Your task to perform on an android device: Open calendar and show me the first week of next month Image 0: 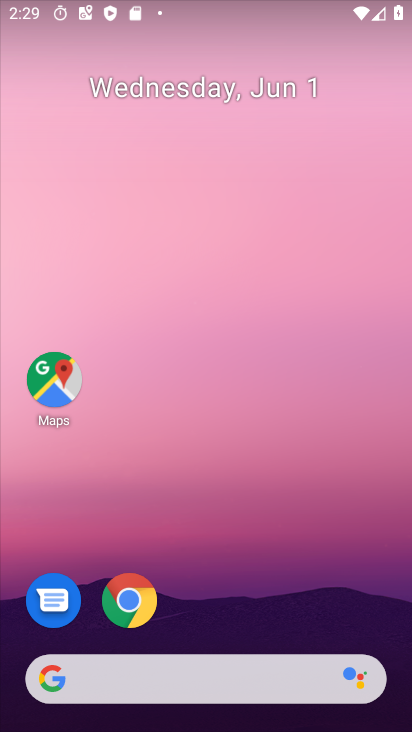
Step 0: drag from (211, 658) to (118, 87)
Your task to perform on an android device: Open calendar and show me the first week of next month Image 1: 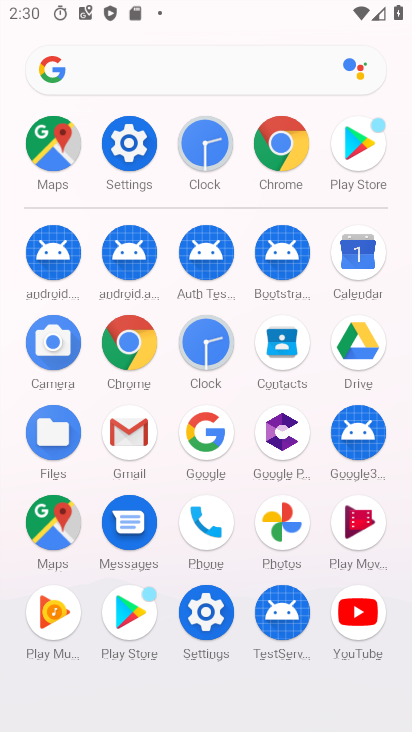
Step 1: click (351, 250)
Your task to perform on an android device: Open calendar and show me the first week of next month Image 2: 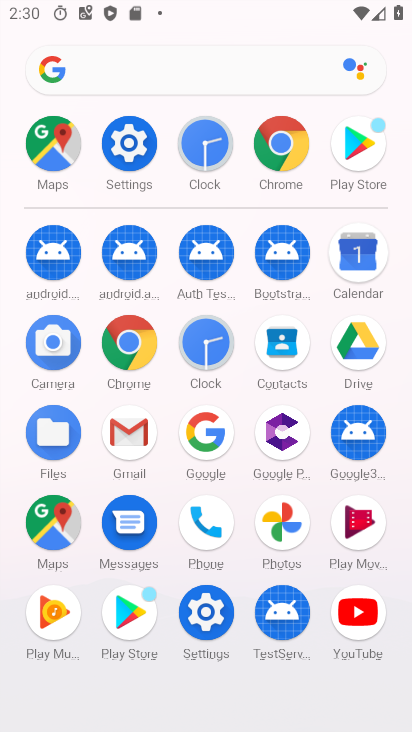
Step 2: click (351, 250)
Your task to perform on an android device: Open calendar and show me the first week of next month Image 3: 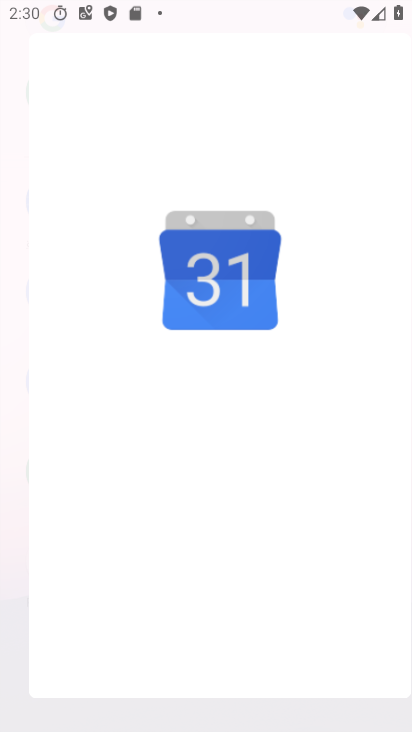
Step 3: click (352, 269)
Your task to perform on an android device: Open calendar and show me the first week of next month Image 4: 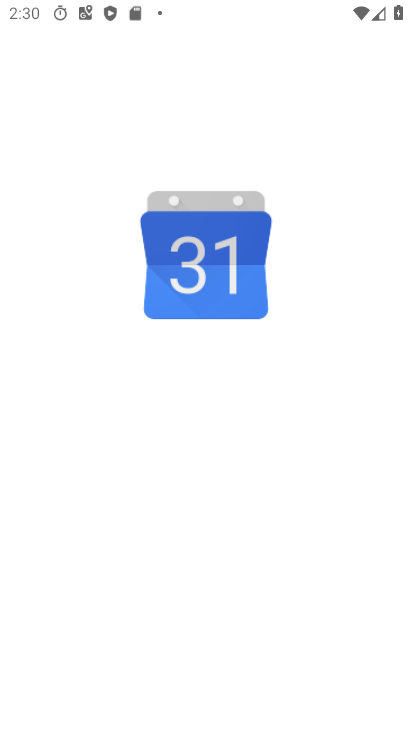
Step 4: click (354, 272)
Your task to perform on an android device: Open calendar and show me the first week of next month Image 5: 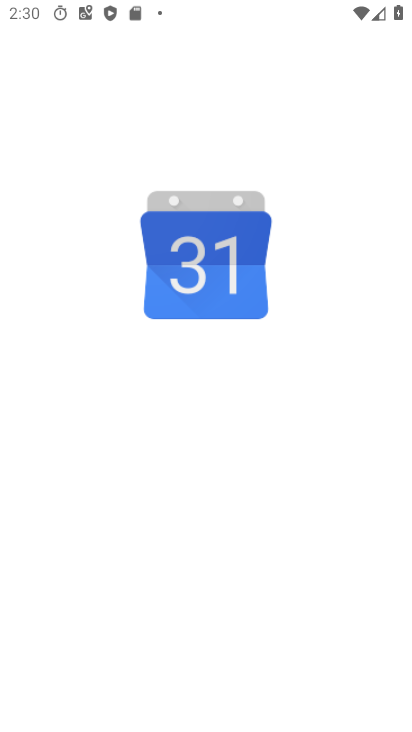
Step 5: click (354, 271)
Your task to perform on an android device: Open calendar and show me the first week of next month Image 6: 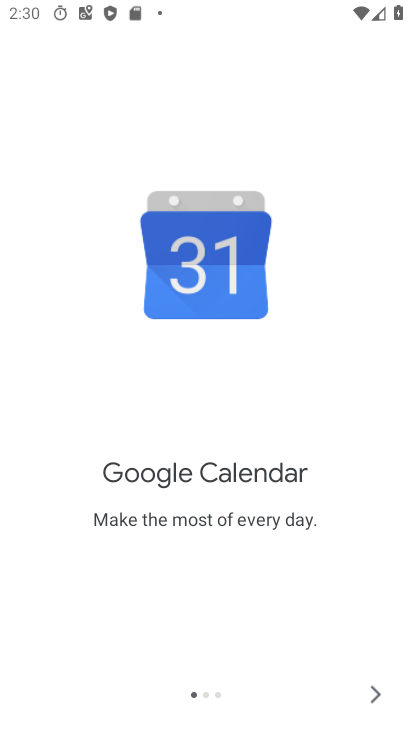
Step 6: click (383, 693)
Your task to perform on an android device: Open calendar and show me the first week of next month Image 7: 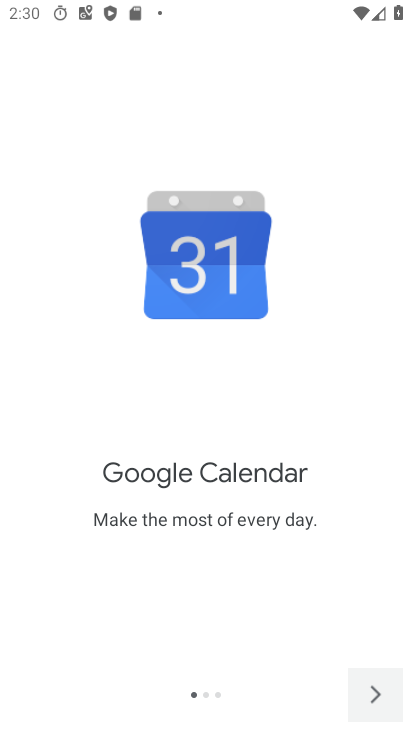
Step 7: click (382, 692)
Your task to perform on an android device: Open calendar and show me the first week of next month Image 8: 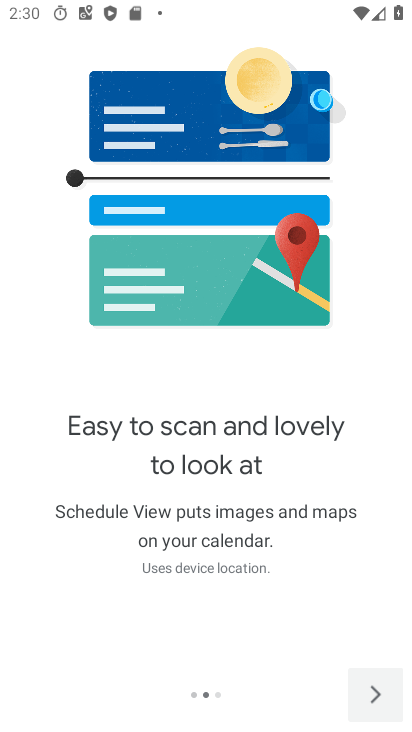
Step 8: click (380, 693)
Your task to perform on an android device: Open calendar and show me the first week of next month Image 9: 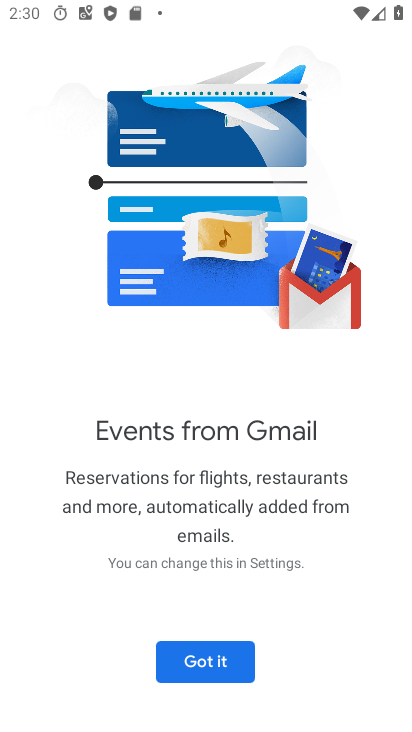
Step 9: click (211, 659)
Your task to perform on an android device: Open calendar and show me the first week of next month Image 10: 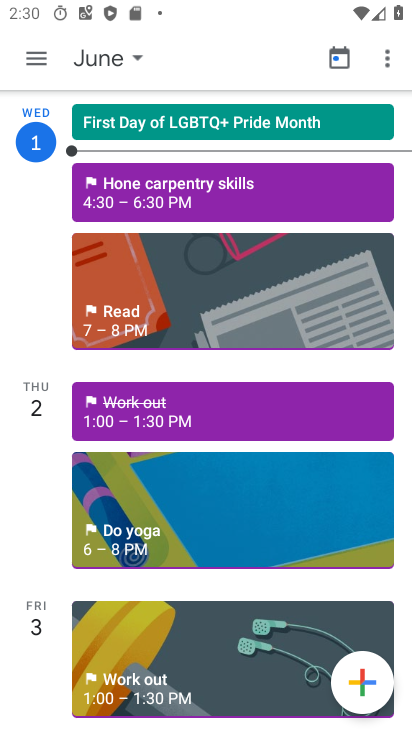
Step 10: click (136, 50)
Your task to perform on an android device: Open calendar and show me the first week of next month Image 11: 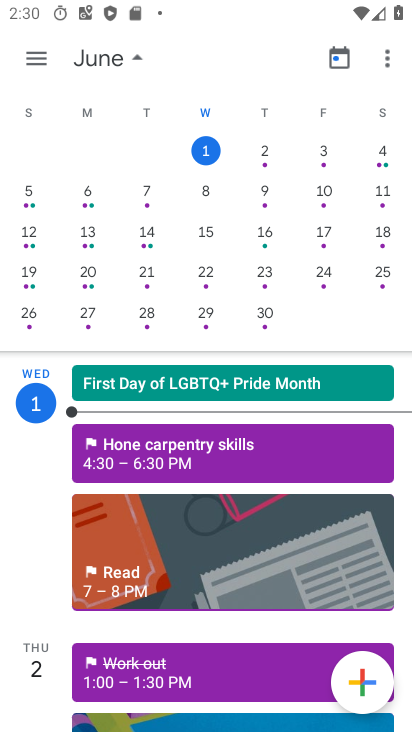
Step 11: click (262, 148)
Your task to perform on an android device: Open calendar and show me the first week of next month Image 12: 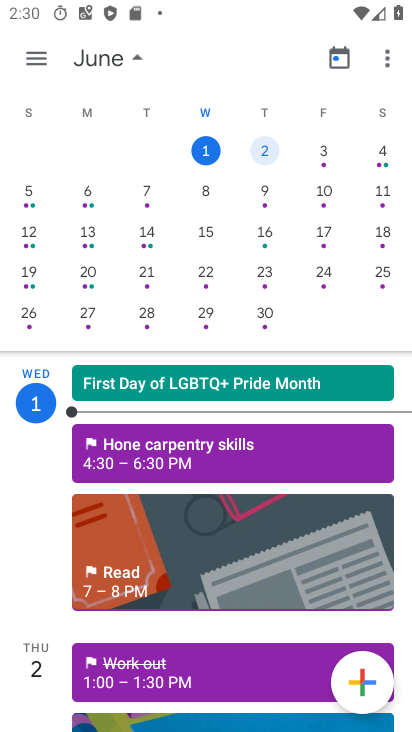
Step 12: click (262, 148)
Your task to perform on an android device: Open calendar and show me the first week of next month Image 13: 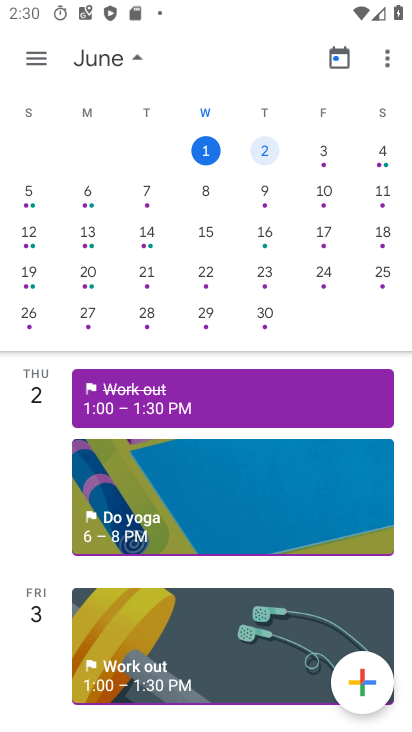
Step 13: click (262, 149)
Your task to perform on an android device: Open calendar and show me the first week of next month Image 14: 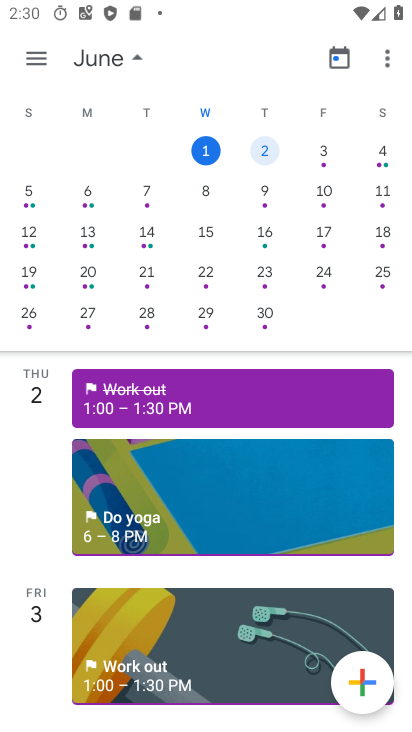
Step 14: task complete